Your task to perform on an android device: Open CNN.com Image 0: 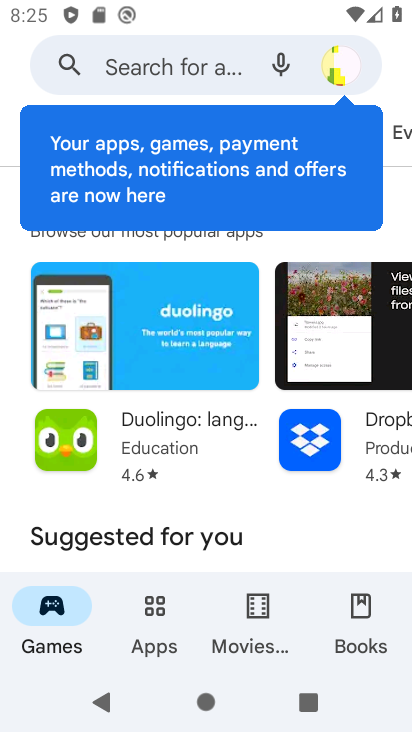
Step 0: press home button
Your task to perform on an android device: Open CNN.com Image 1: 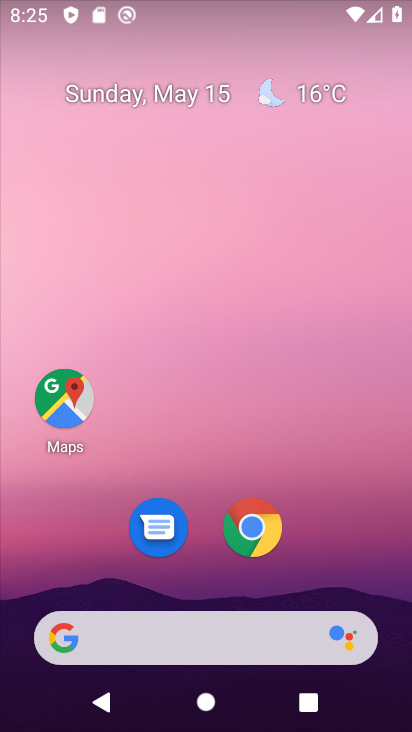
Step 1: click (352, 521)
Your task to perform on an android device: Open CNN.com Image 2: 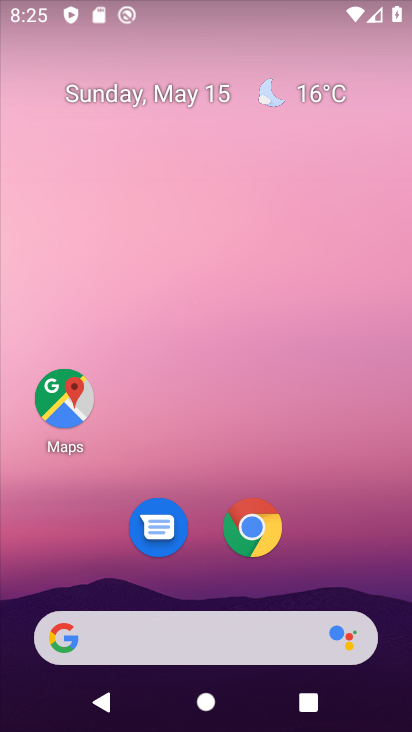
Step 2: click (264, 530)
Your task to perform on an android device: Open CNN.com Image 3: 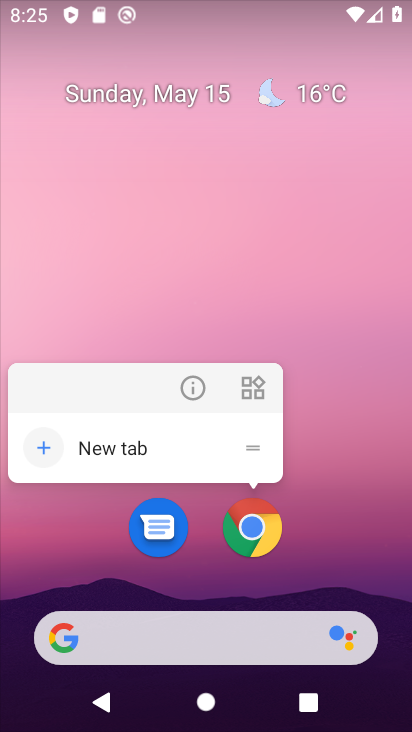
Step 3: click (340, 456)
Your task to perform on an android device: Open CNN.com Image 4: 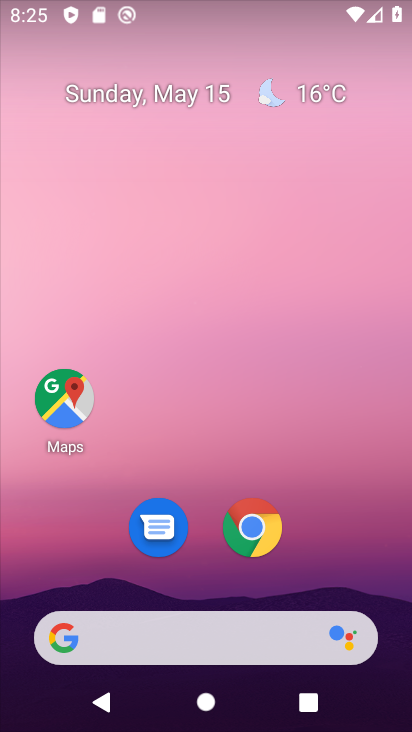
Step 4: click (256, 526)
Your task to perform on an android device: Open CNN.com Image 5: 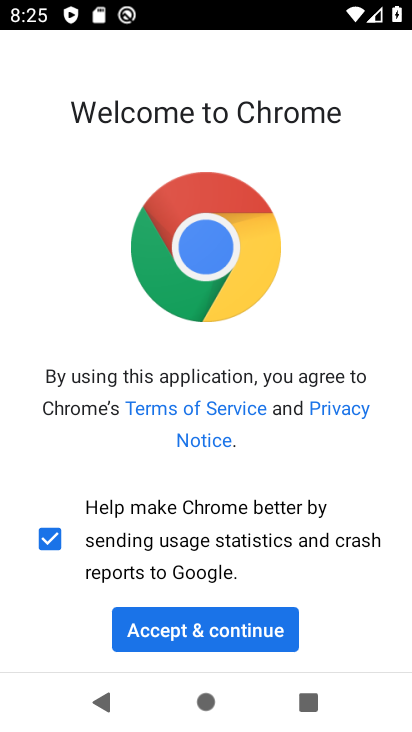
Step 5: click (226, 625)
Your task to perform on an android device: Open CNN.com Image 6: 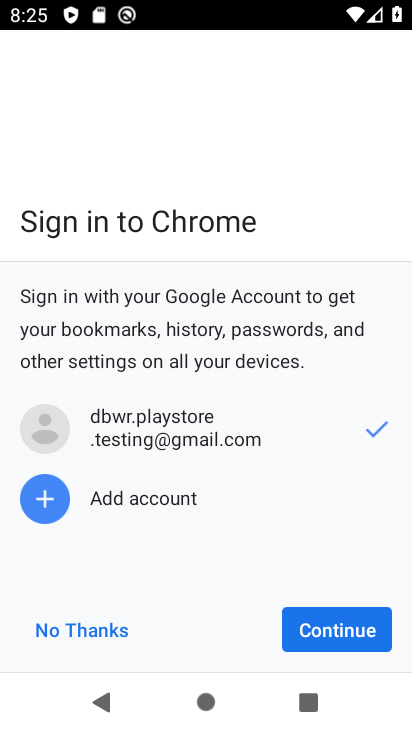
Step 6: click (90, 629)
Your task to perform on an android device: Open CNN.com Image 7: 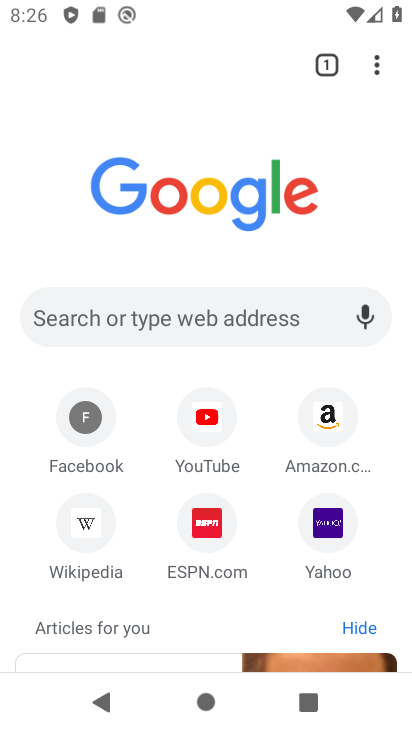
Step 7: click (116, 309)
Your task to perform on an android device: Open CNN.com Image 8: 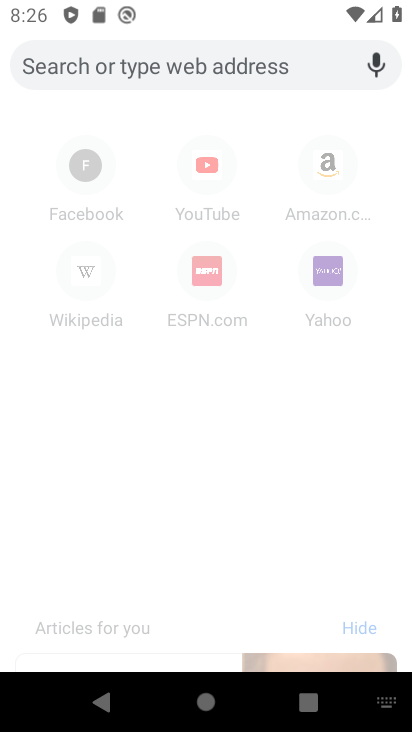
Step 8: type "cnn.com"
Your task to perform on an android device: Open CNN.com Image 9: 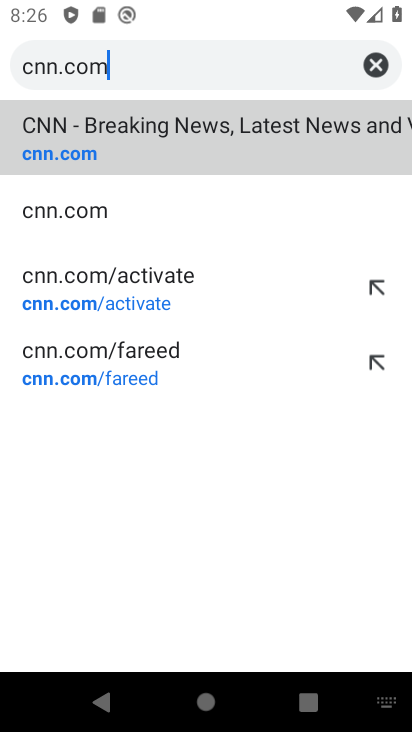
Step 9: click (44, 213)
Your task to perform on an android device: Open CNN.com Image 10: 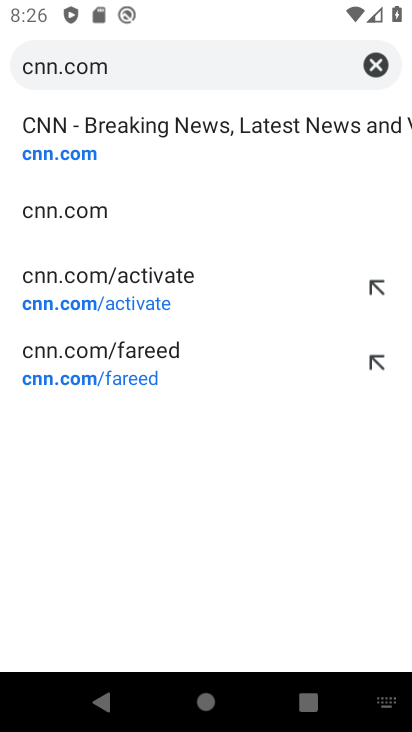
Step 10: click (85, 210)
Your task to perform on an android device: Open CNN.com Image 11: 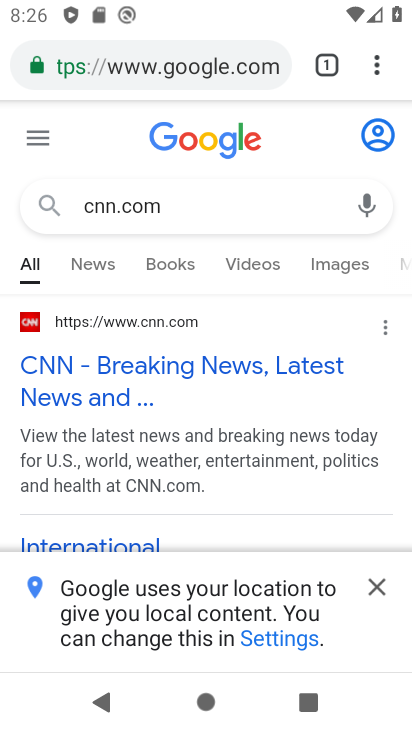
Step 11: click (76, 367)
Your task to perform on an android device: Open CNN.com Image 12: 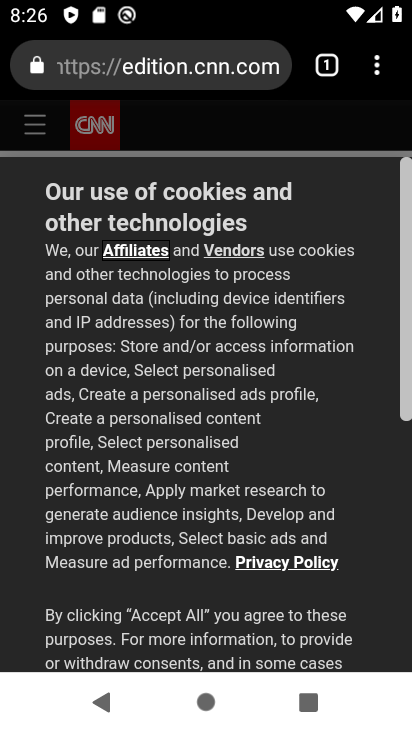
Step 12: task complete